Your task to perform on an android device: How big is the earth? Image 0: 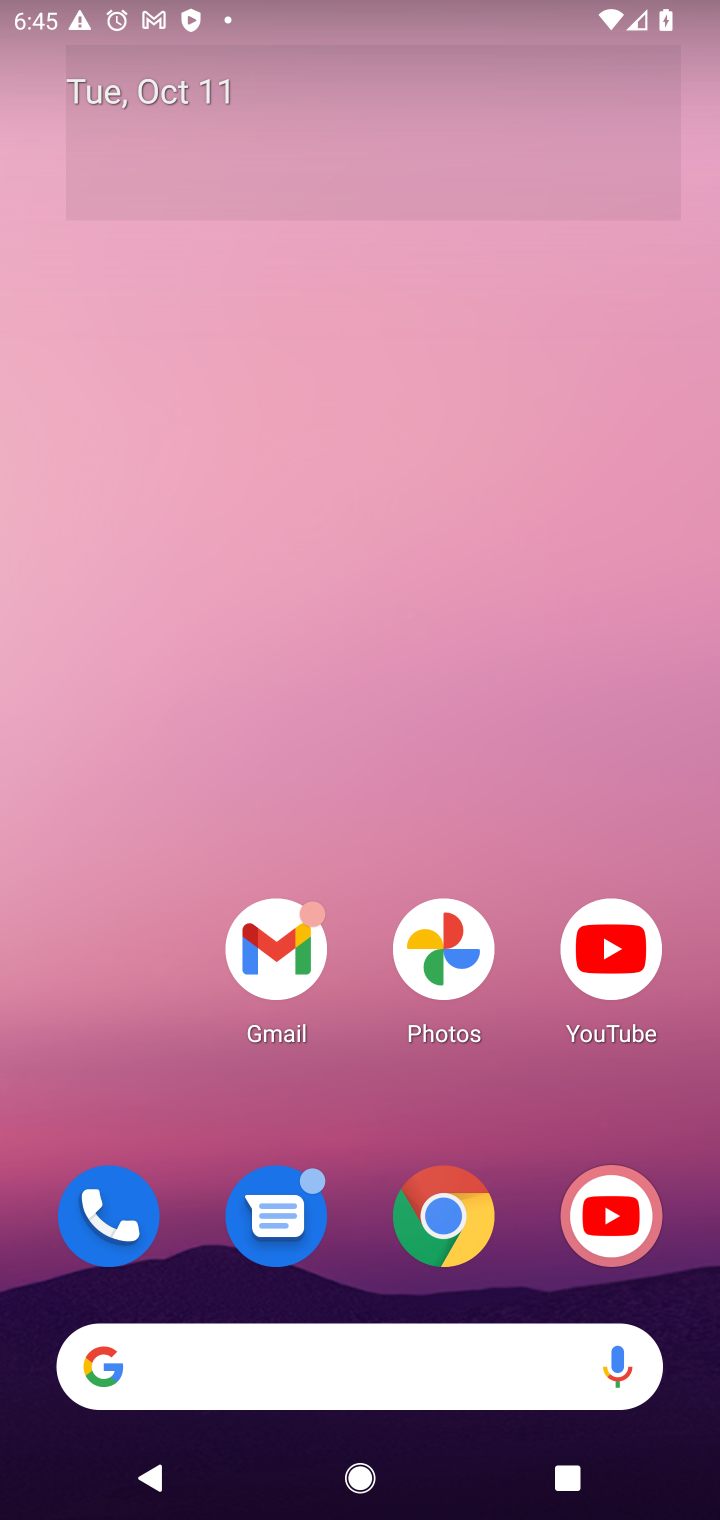
Step 0: click (472, 1240)
Your task to perform on an android device: How big is the earth? Image 1: 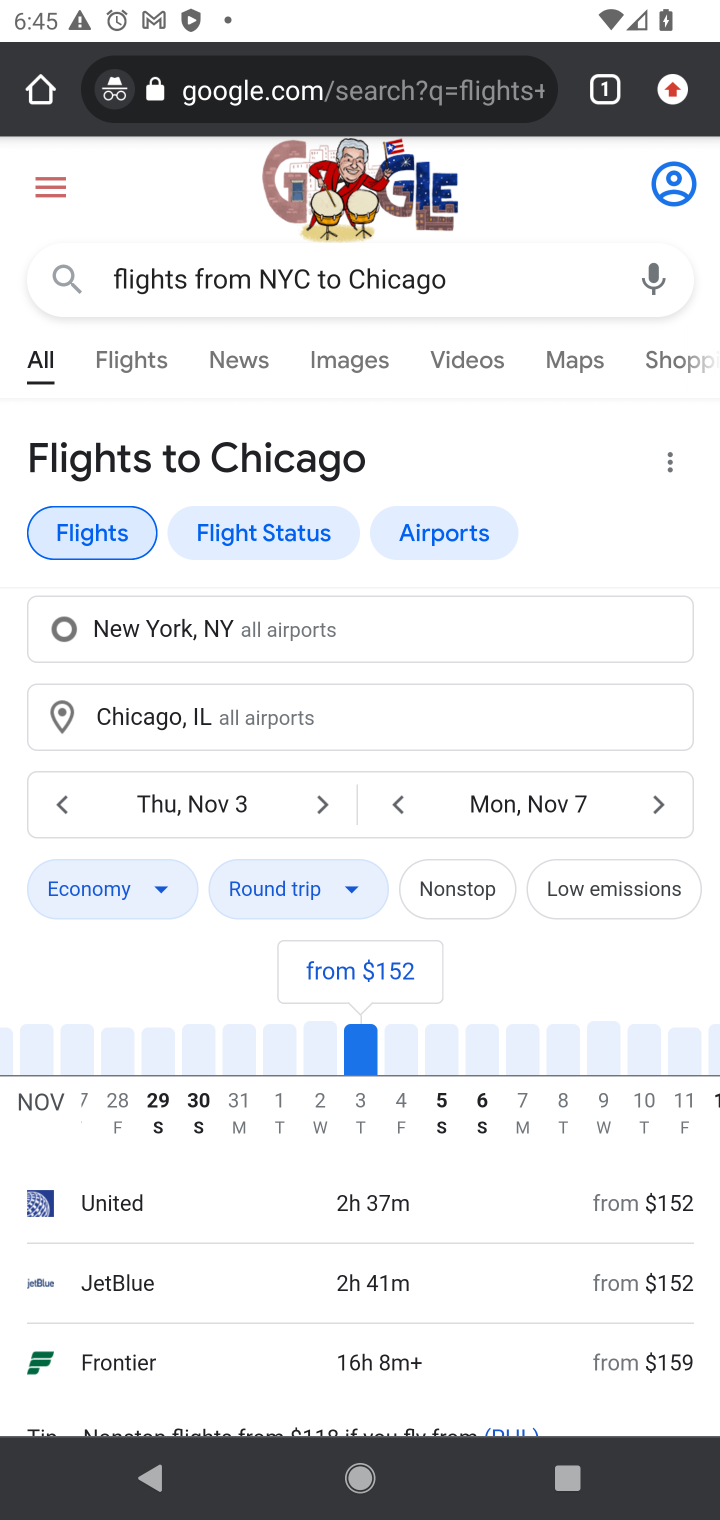
Step 1: click (494, 285)
Your task to perform on an android device: How big is the earth? Image 2: 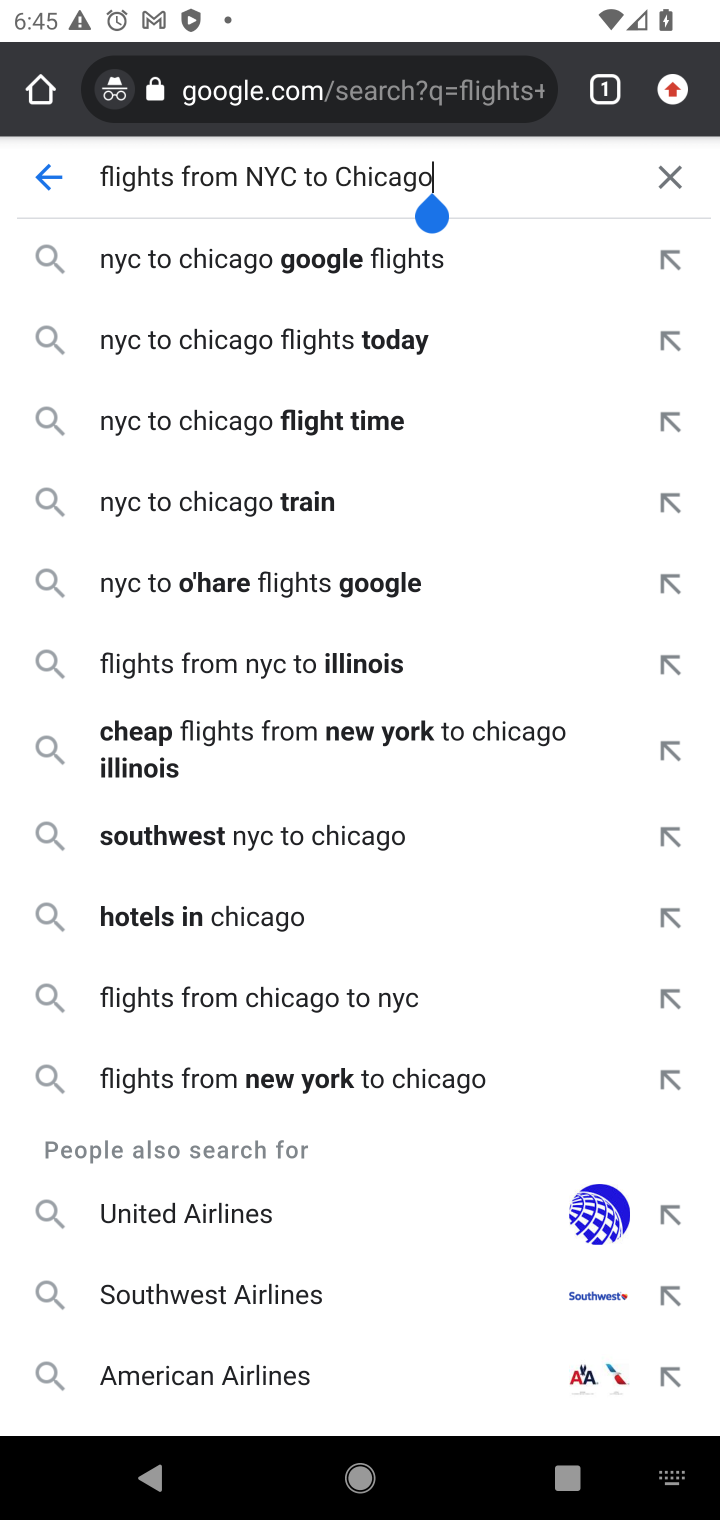
Step 2: click (668, 180)
Your task to perform on an android device: How big is the earth? Image 3: 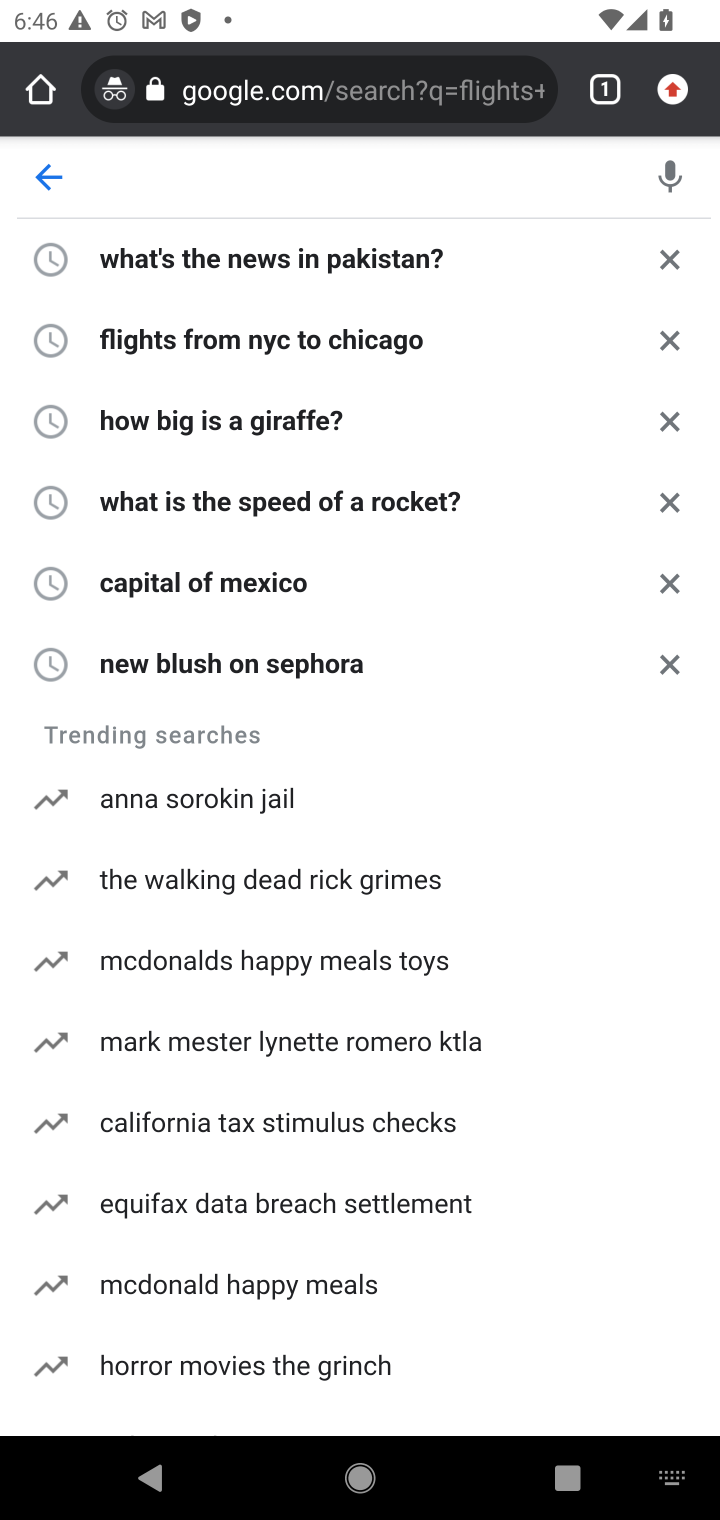
Step 3: type "How big is the earth?"
Your task to perform on an android device: How big is the earth? Image 4: 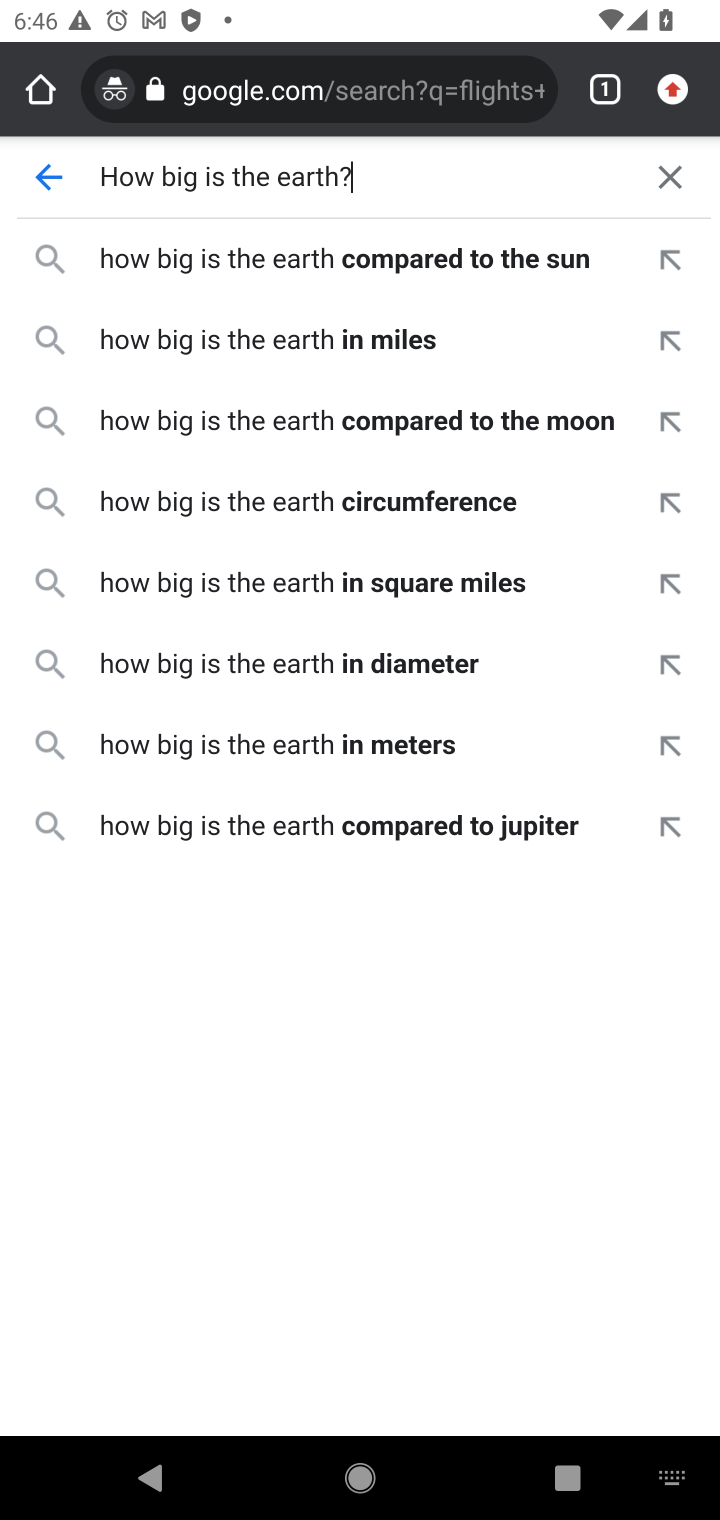
Step 4: press enter
Your task to perform on an android device: How big is the earth? Image 5: 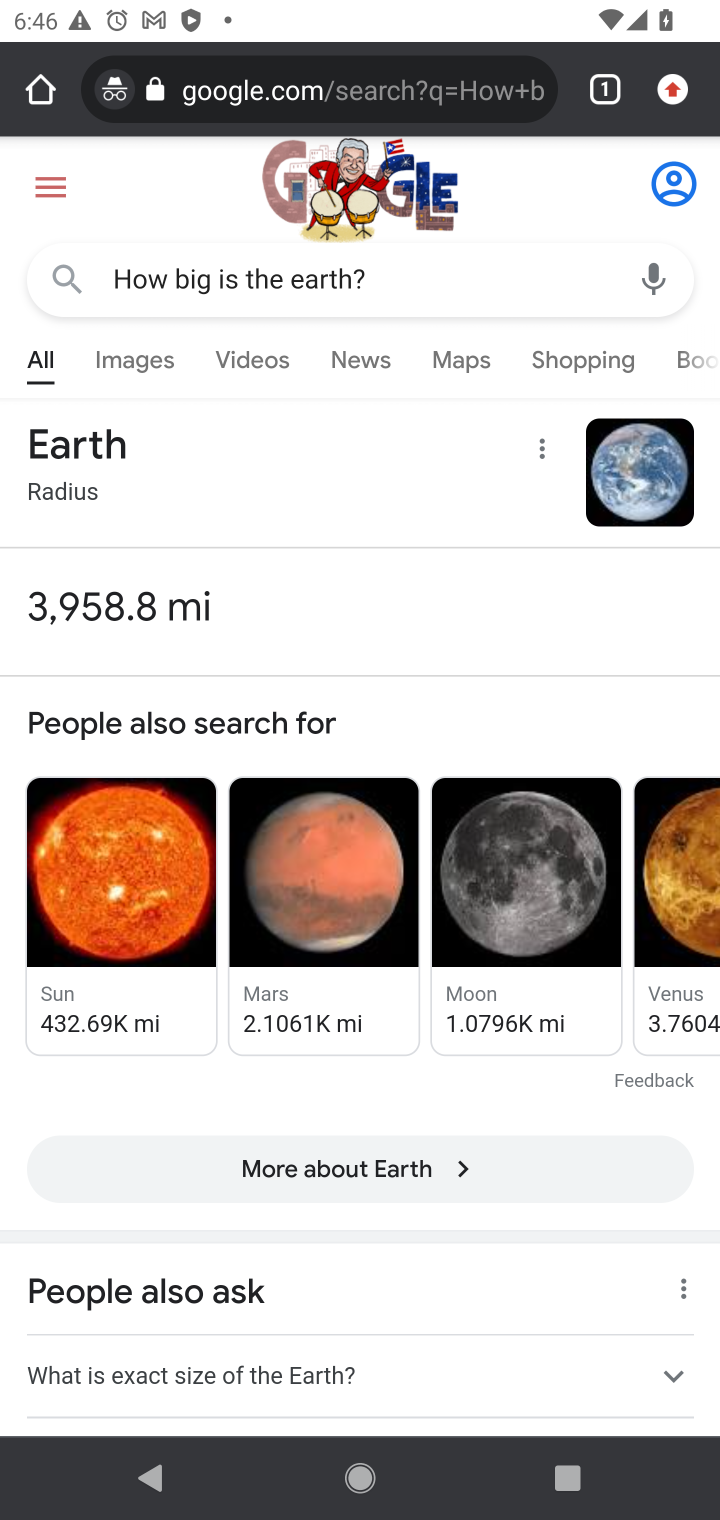
Step 5: task complete